Your task to perform on an android device: refresh tabs in the chrome app Image 0: 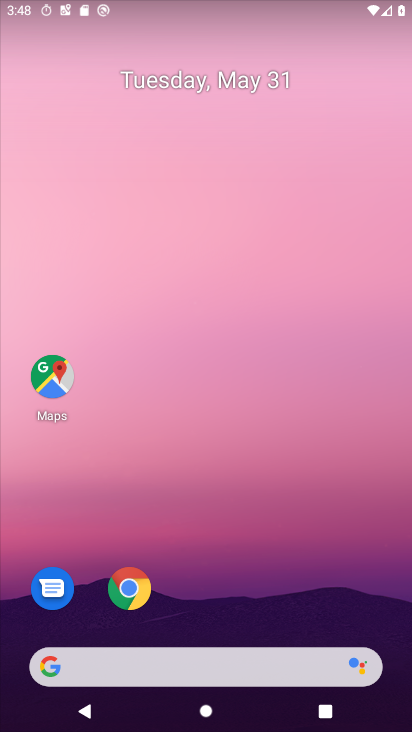
Step 0: drag from (250, 678) to (255, 140)
Your task to perform on an android device: refresh tabs in the chrome app Image 1: 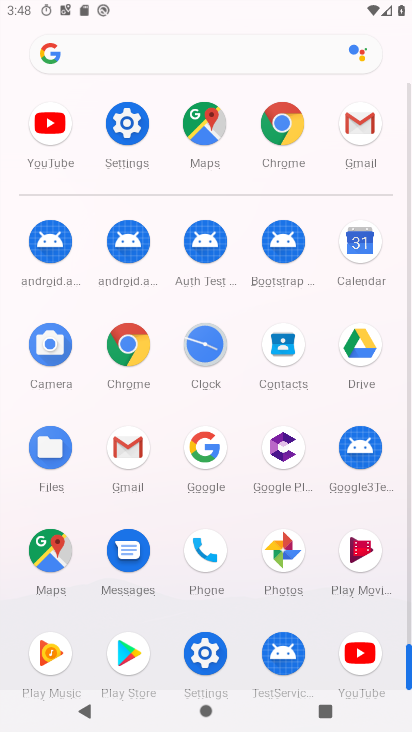
Step 1: click (130, 375)
Your task to perform on an android device: refresh tabs in the chrome app Image 2: 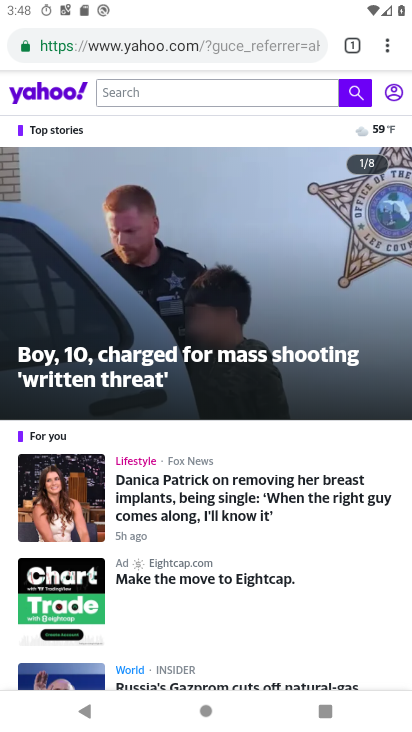
Step 2: click (390, 54)
Your task to perform on an android device: refresh tabs in the chrome app Image 3: 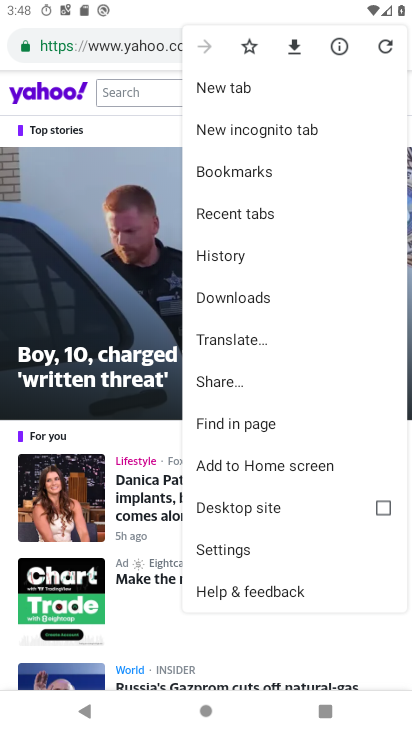
Step 3: click (390, 54)
Your task to perform on an android device: refresh tabs in the chrome app Image 4: 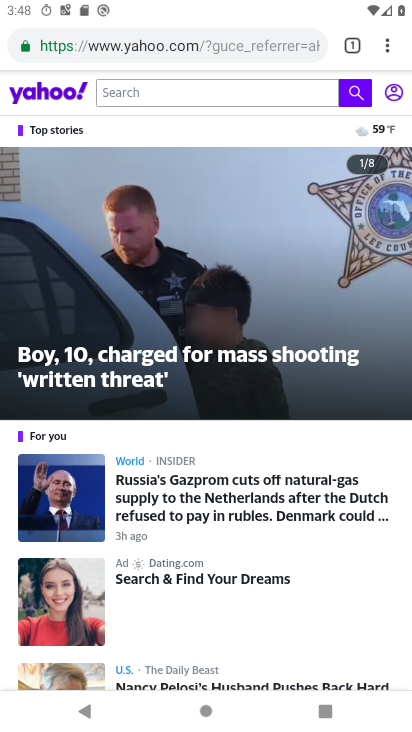
Step 4: task complete